Your task to perform on an android device: Show me popular videos on Youtube Image 0: 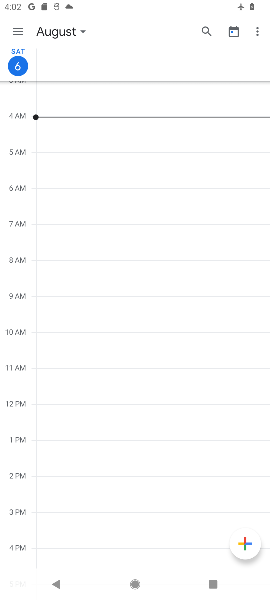
Step 0: press back button
Your task to perform on an android device: Show me popular videos on Youtube Image 1: 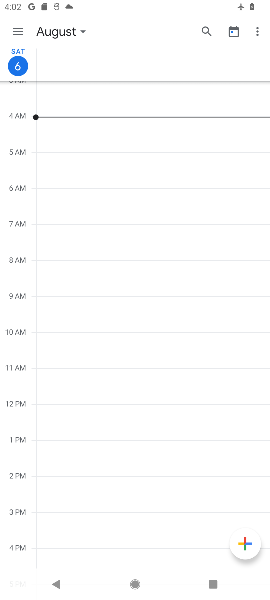
Step 1: press back button
Your task to perform on an android device: Show me popular videos on Youtube Image 2: 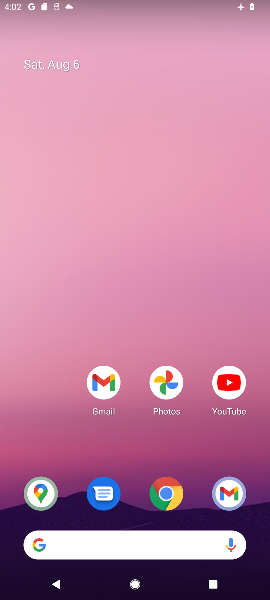
Step 2: drag from (148, 257) to (130, 126)
Your task to perform on an android device: Show me popular videos on Youtube Image 3: 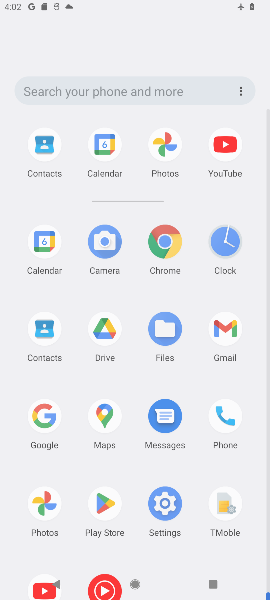
Step 3: drag from (134, 56) to (136, 13)
Your task to perform on an android device: Show me popular videos on Youtube Image 4: 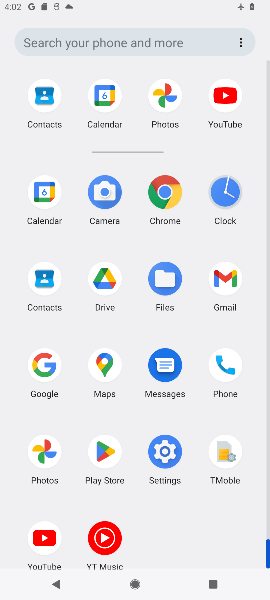
Step 4: click (44, 540)
Your task to perform on an android device: Show me popular videos on Youtube Image 5: 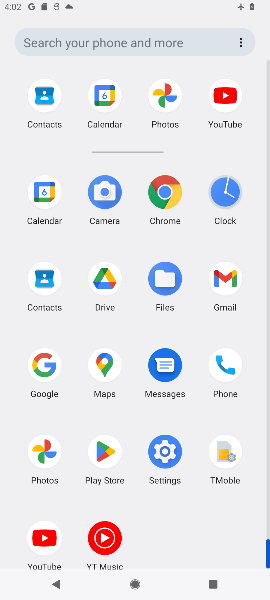
Step 5: click (44, 540)
Your task to perform on an android device: Show me popular videos on Youtube Image 6: 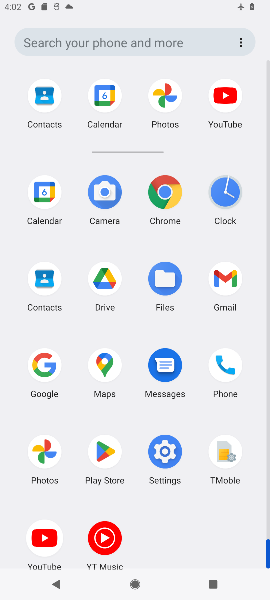
Step 6: click (44, 540)
Your task to perform on an android device: Show me popular videos on Youtube Image 7: 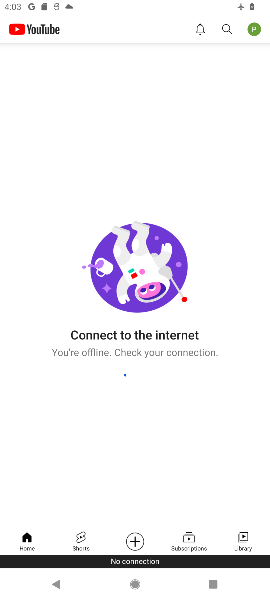
Step 7: press back button
Your task to perform on an android device: Show me popular videos on Youtube Image 8: 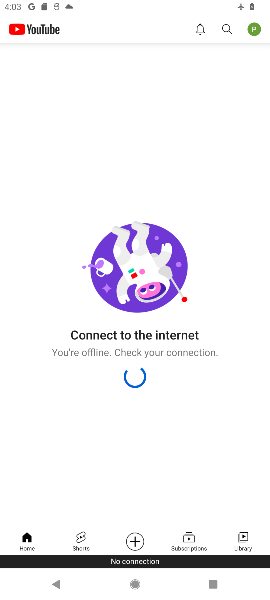
Step 8: press back button
Your task to perform on an android device: Show me popular videos on Youtube Image 9: 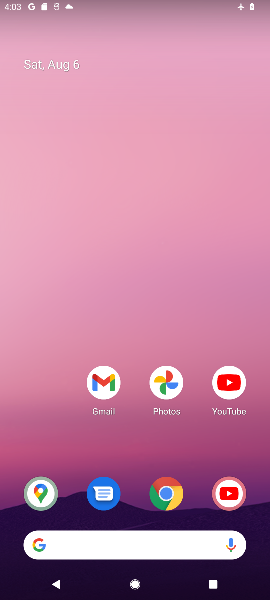
Step 9: click (230, 382)
Your task to perform on an android device: Show me popular videos on Youtube Image 10: 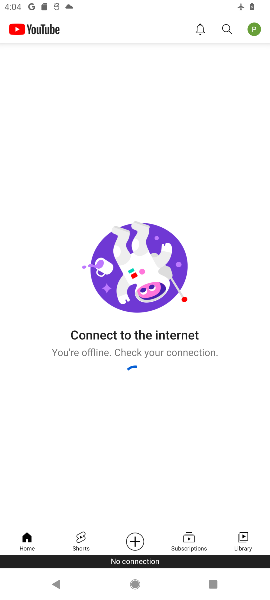
Step 10: press back button
Your task to perform on an android device: Show me popular videos on Youtube Image 11: 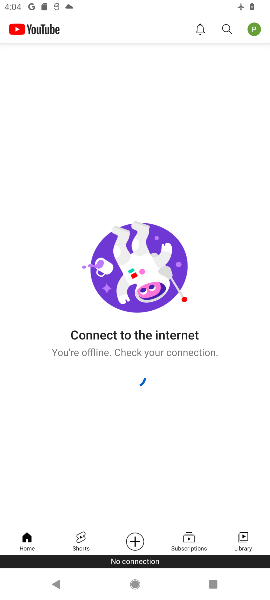
Step 11: press back button
Your task to perform on an android device: Show me popular videos on Youtube Image 12: 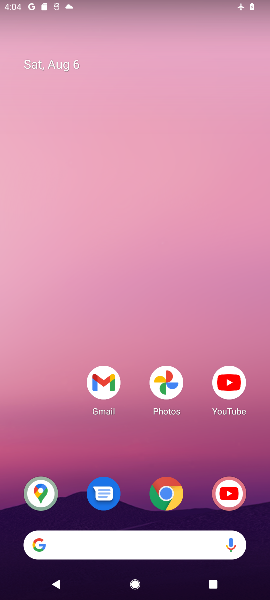
Step 12: click (139, 153)
Your task to perform on an android device: Show me popular videos on Youtube Image 13: 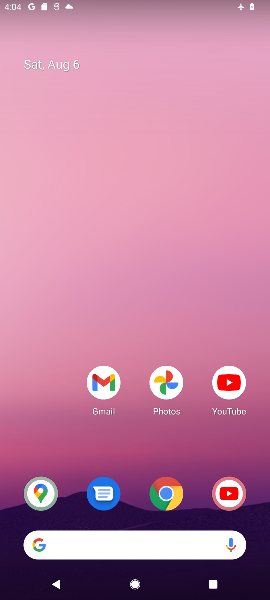
Step 13: drag from (130, 479) to (103, 185)
Your task to perform on an android device: Show me popular videos on Youtube Image 14: 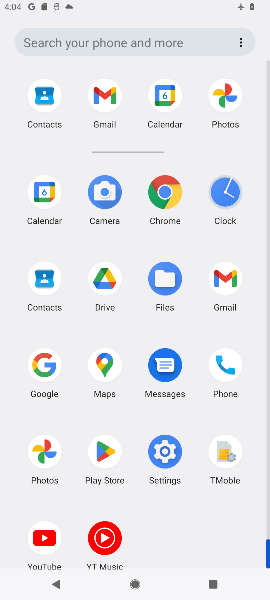
Step 14: click (51, 533)
Your task to perform on an android device: Show me popular videos on Youtube Image 15: 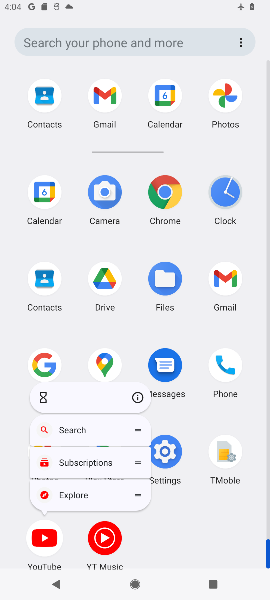
Step 15: click (51, 533)
Your task to perform on an android device: Show me popular videos on Youtube Image 16: 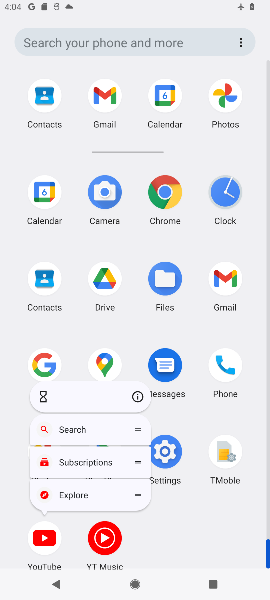
Step 16: click (46, 539)
Your task to perform on an android device: Show me popular videos on Youtube Image 17: 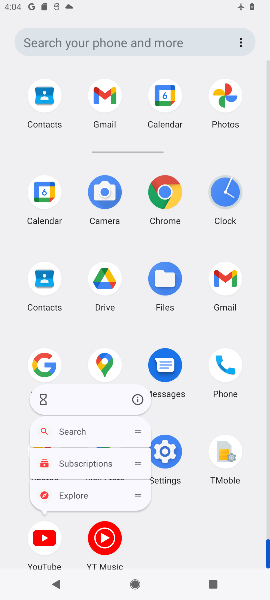
Step 17: click (46, 540)
Your task to perform on an android device: Show me popular videos on Youtube Image 18: 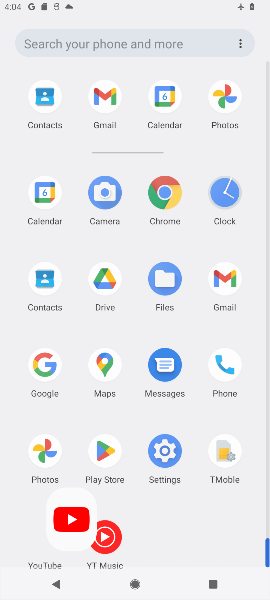
Step 18: click (41, 546)
Your task to perform on an android device: Show me popular videos on Youtube Image 19: 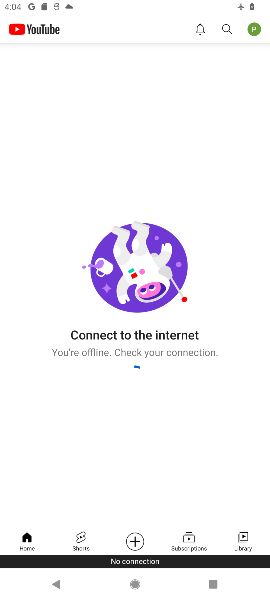
Step 19: click (247, 545)
Your task to perform on an android device: Show me popular videos on Youtube Image 20: 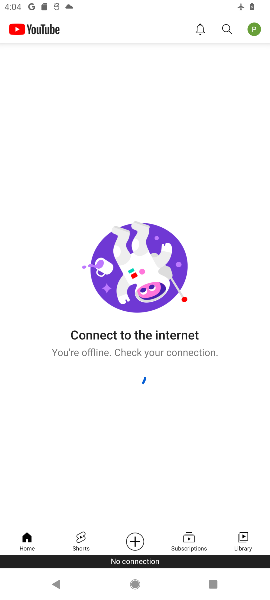
Step 20: click (247, 545)
Your task to perform on an android device: Show me popular videos on Youtube Image 21: 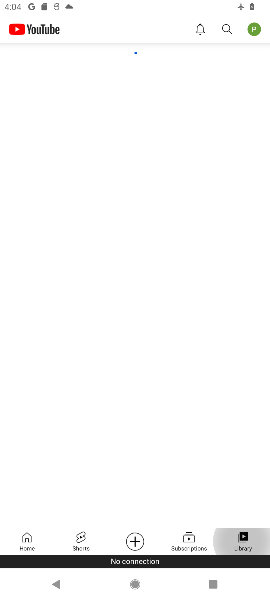
Step 21: click (247, 545)
Your task to perform on an android device: Show me popular videos on Youtube Image 22: 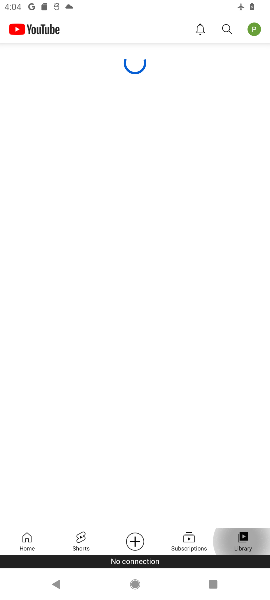
Step 22: click (247, 545)
Your task to perform on an android device: Show me popular videos on Youtube Image 23: 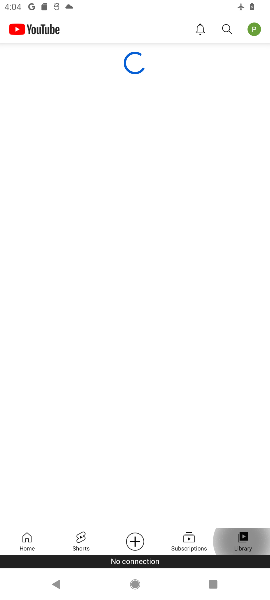
Step 23: click (247, 545)
Your task to perform on an android device: Show me popular videos on Youtube Image 24: 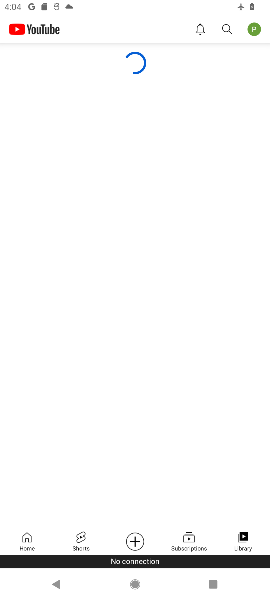
Step 24: task complete